Your task to perform on an android device: turn off airplane mode Image 0: 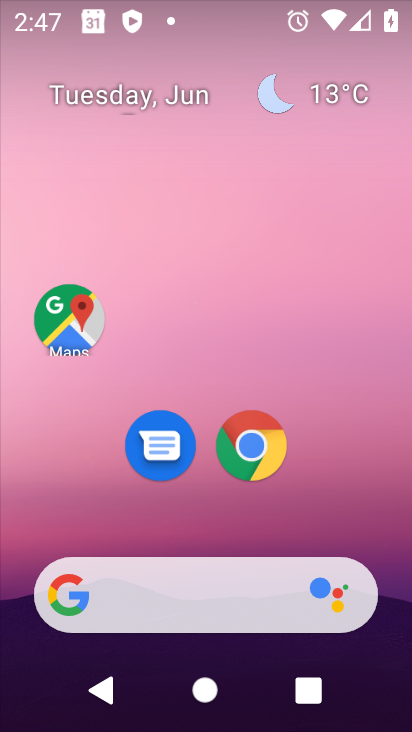
Step 0: drag from (399, 610) to (350, 144)
Your task to perform on an android device: turn off airplane mode Image 1: 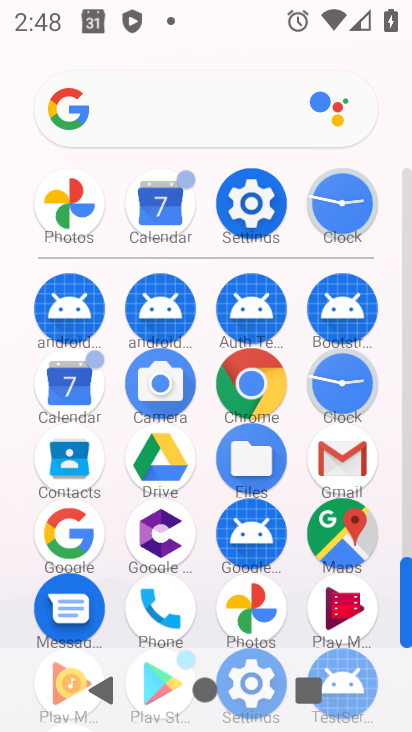
Step 1: click (403, 532)
Your task to perform on an android device: turn off airplane mode Image 2: 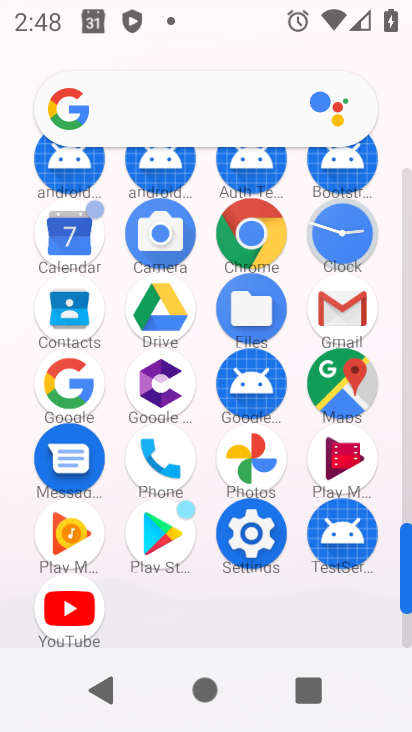
Step 2: click (251, 533)
Your task to perform on an android device: turn off airplane mode Image 3: 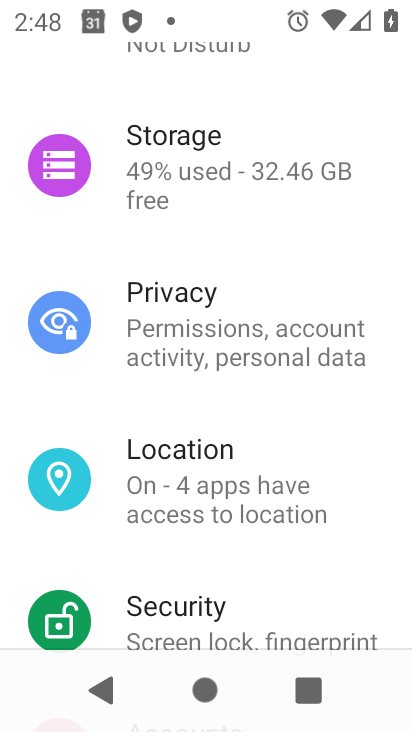
Step 3: drag from (357, 241) to (358, 503)
Your task to perform on an android device: turn off airplane mode Image 4: 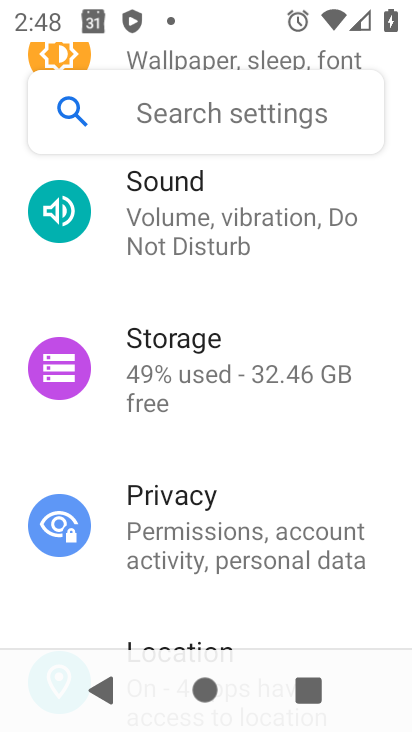
Step 4: drag from (365, 185) to (353, 470)
Your task to perform on an android device: turn off airplane mode Image 5: 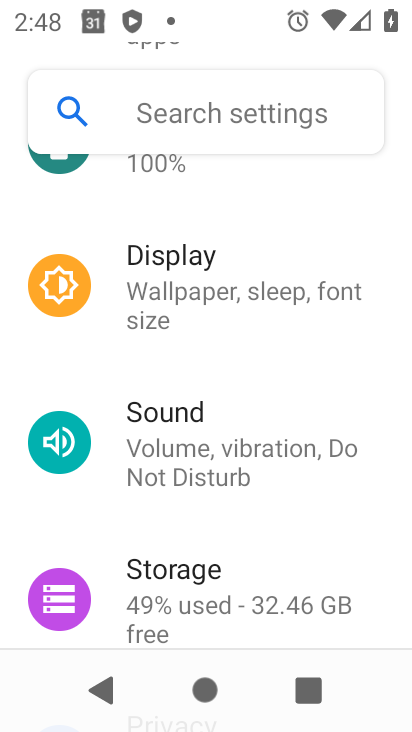
Step 5: drag from (359, 225) to (353, 502)
Your task to perform on an android device: turn off airplane mode Image 6: 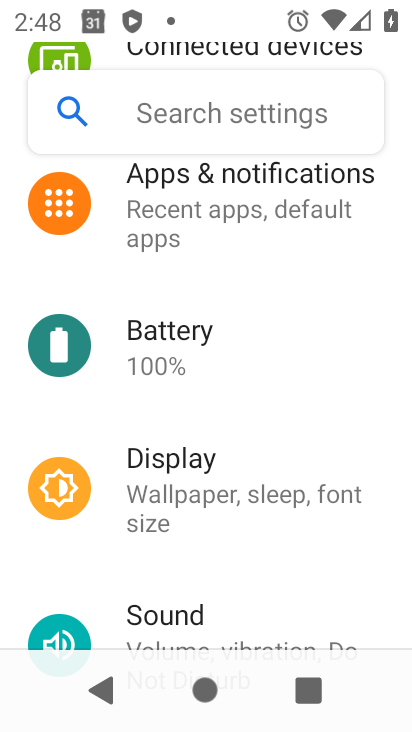
Step 6: drag from (353, 262) to (342, 527)
Your task to perform on an android device: turn off airplane mode Image 7: 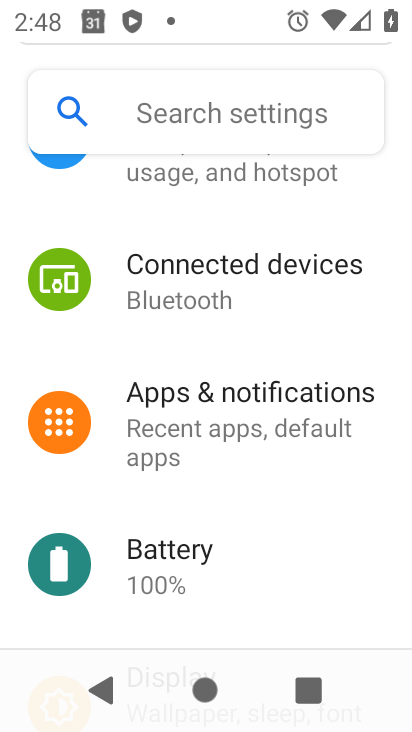
Step 7: drag from (359, 231) to (361, 483)
Your task to perform on an android device: turn off airplane mode Image 8: 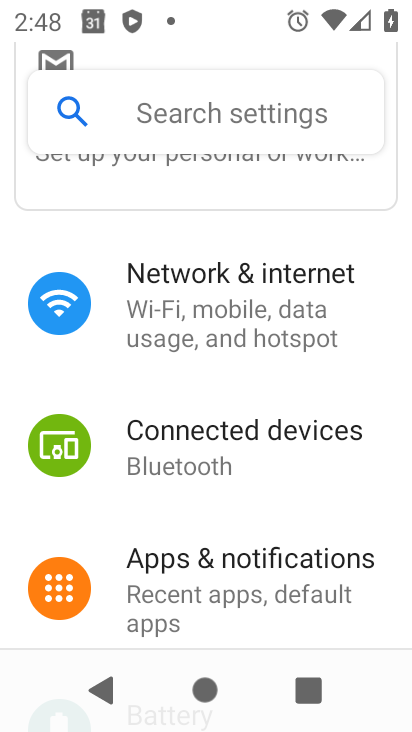
Step 8: click (182, 298)
Your task to perform on an android device: turn off airplane mode Image 9: 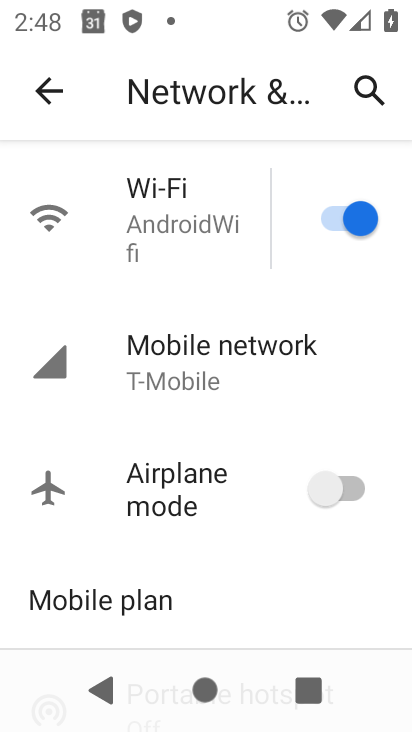
Step 9: task complete